Your task to perform on an android device: move an email to a new category in the gmail app Image 0: 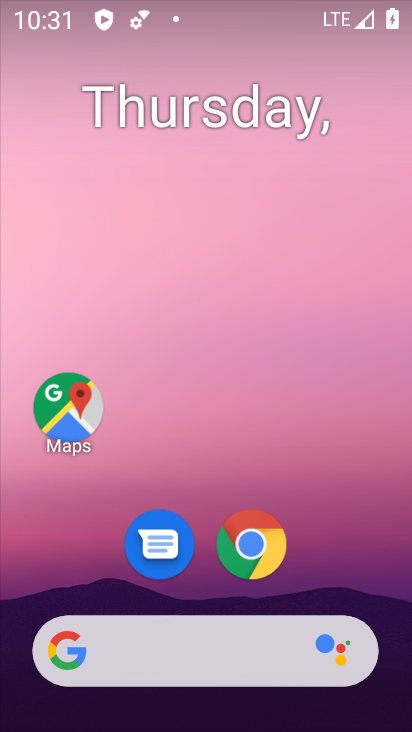
Step 0: drag from (315, 552) to (190, 135)
Your task to perform on an android device: move an email to a new category in the gmail app Image 1: 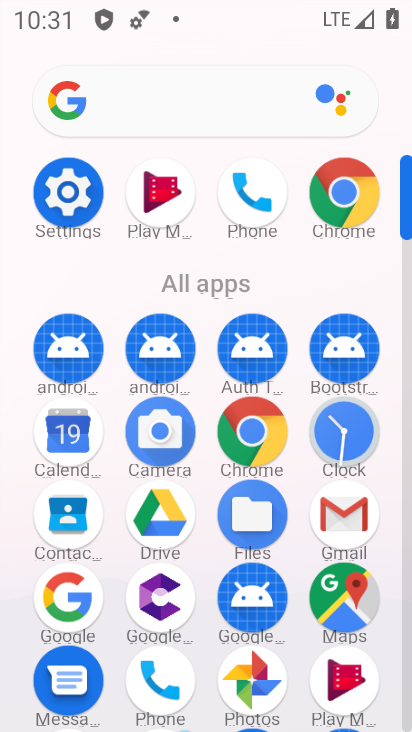
Step 1: click (348, 511)
Your task to perform on an android device: move an email to a new category in the gmail app Image 2: 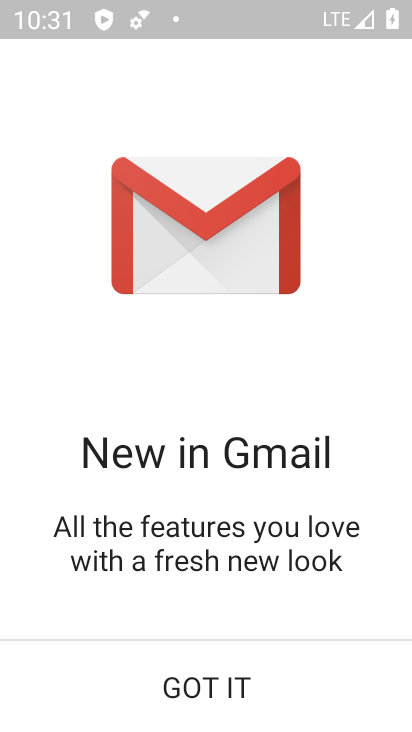
Step 2: click (194, 693)
Your task to perform on an android device: move an email to a new category in the gmail app Image 3: 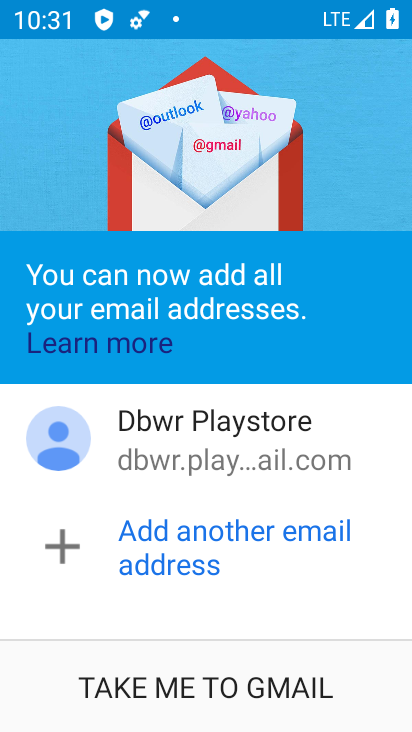
Step 3: click (194, 693)
Your task to perform on an android device: move an email to a new category in the gmail app Image 4: 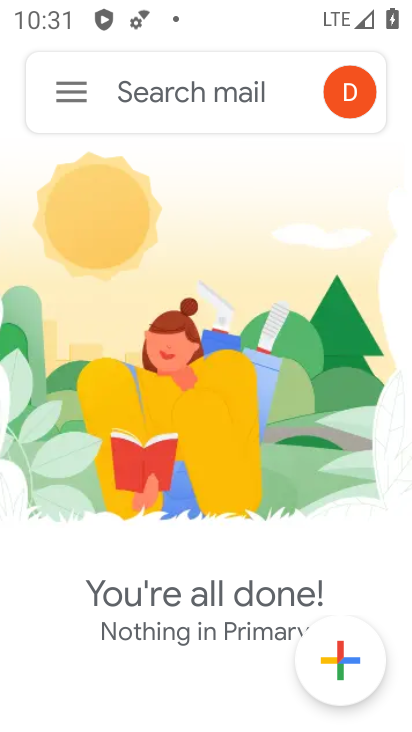
Step 4: click (76, 90)
Your task to perform on an android device: move an email to a new category in the gmail app Image 5: 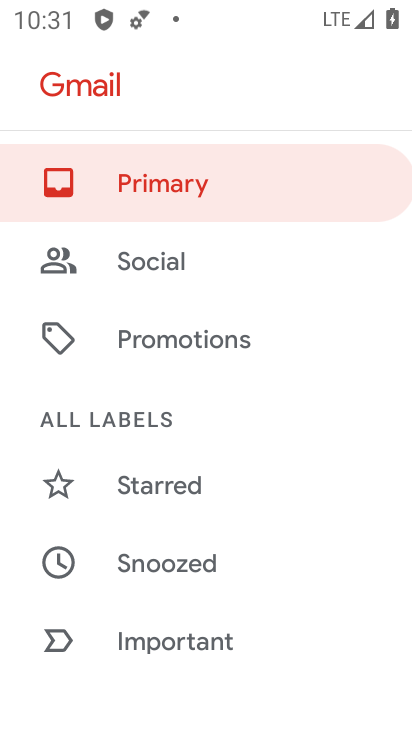
Step 5: drag from (132, 683) to (198, 319)
Your task to perform on an android device: move an email to a new category in the gmail app Image 6: 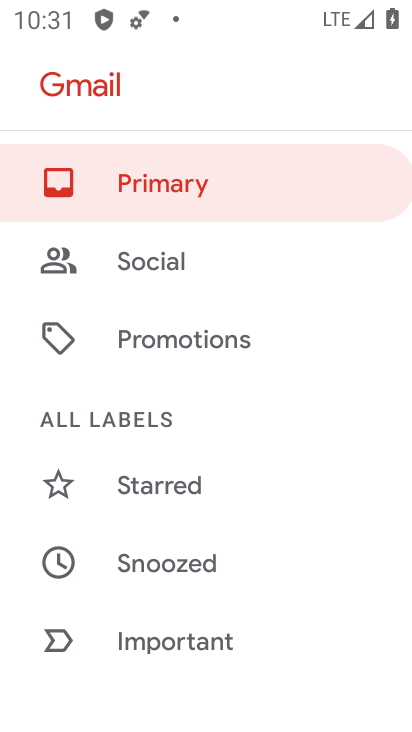
Step 6: drag from (214, 527) to (199, 151)
Your task to perform on an android device: move an email to a new category in the gmail app Image 7: 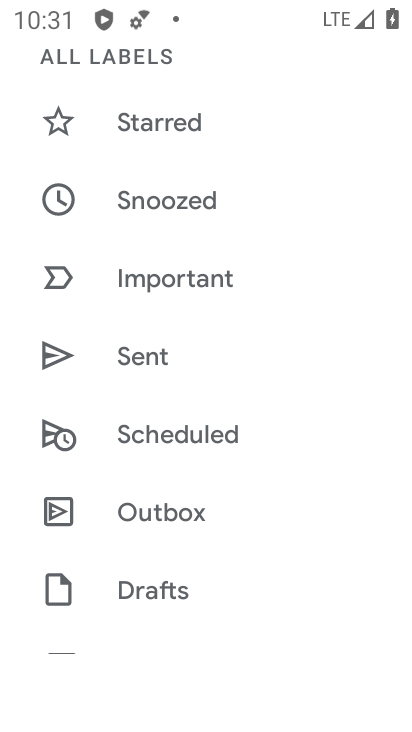
Step 7: drag from (200, 596) to (208, 236)
Your task to perform on an android device: move an email to a new category in the gmail app Image 8: 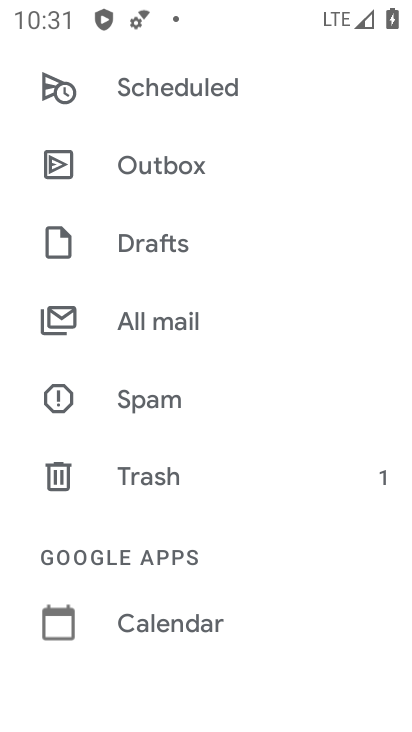
Step 8: click (168, 476)
Your task to perform on an android device: move an email to a new category in the gmail app Image 9: 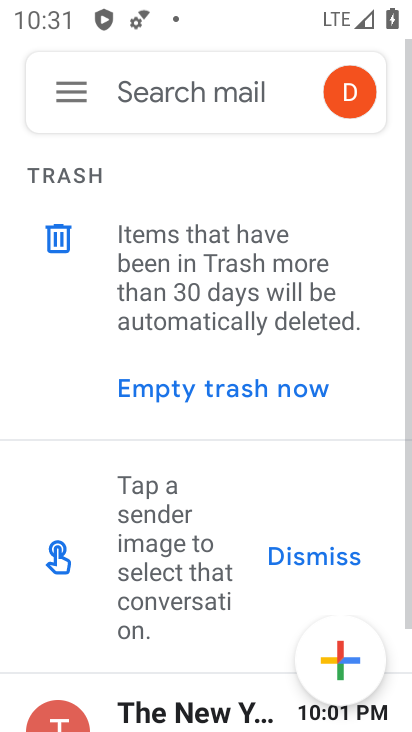
Step 9: drag from (185, 631) to (191, 344)
Your task to perform on an android device: move an email to a new category in the gmail app Image 10: 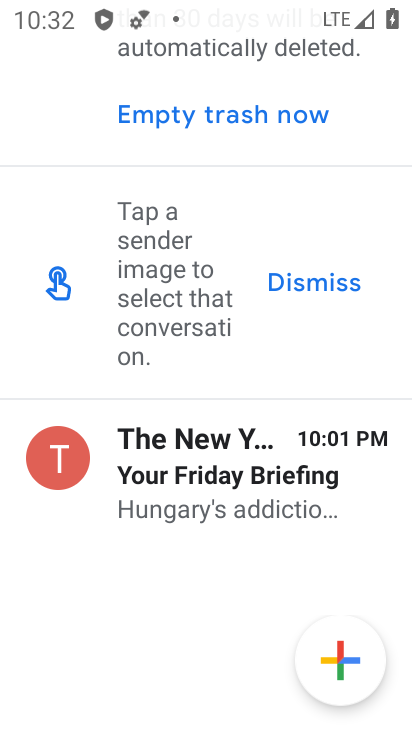
Step 10: click (130, 433)
Your task to perform on an android device: move an email to a new category in the gmail app Image 11: 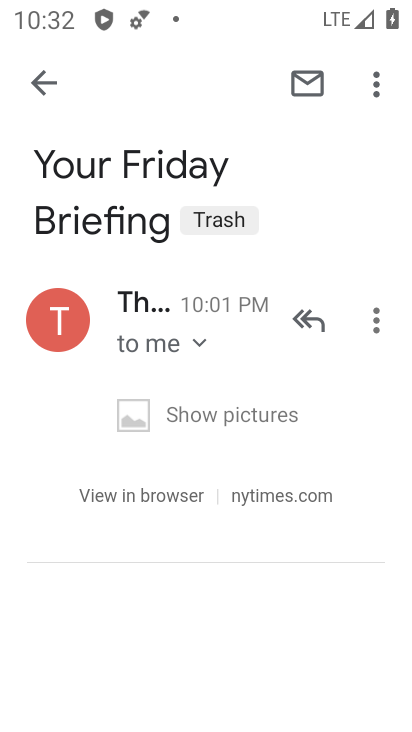
Step 11: click (377, 87)
Your task to perform on an android device: move an email to a new category in the gmail app Image 12: 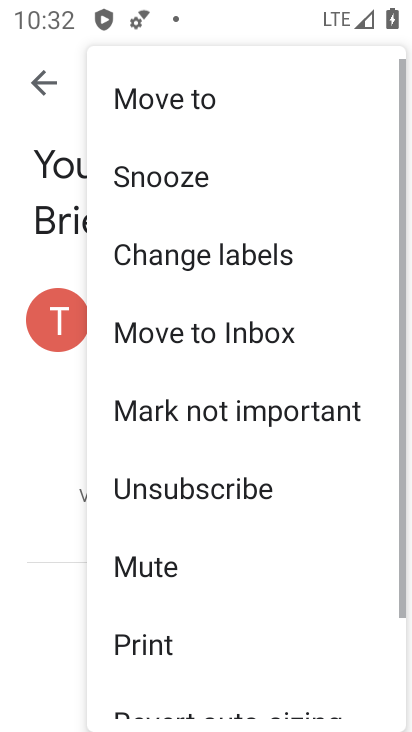
Step 12: click (140, 85)
Your task to perform on an android device: move an email to a new category in the gmail app Image 13: 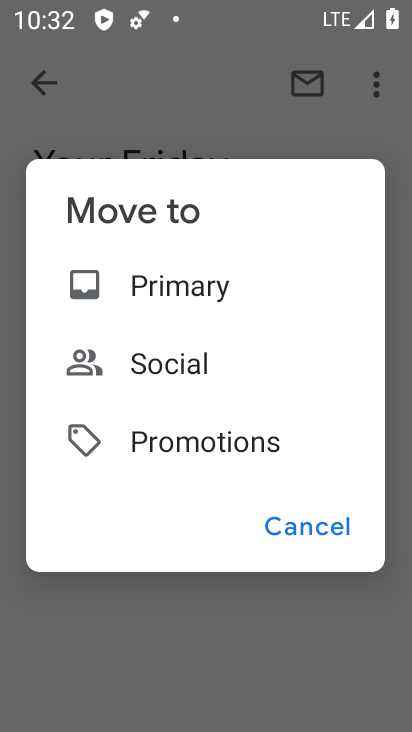
Step 13: click (157, 372)
Your task to perform on an android device: move an email to a new category in the gmail app Image 14: 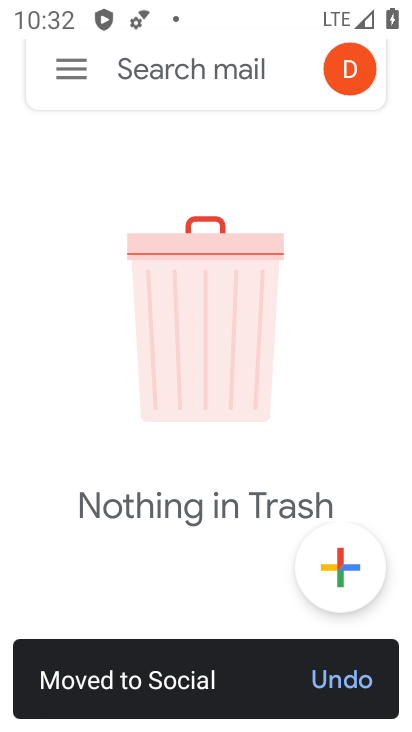
Step 14: click (62, 71)
Your task to perform on an android device: move an email to a new category in the gmail app Image 15: 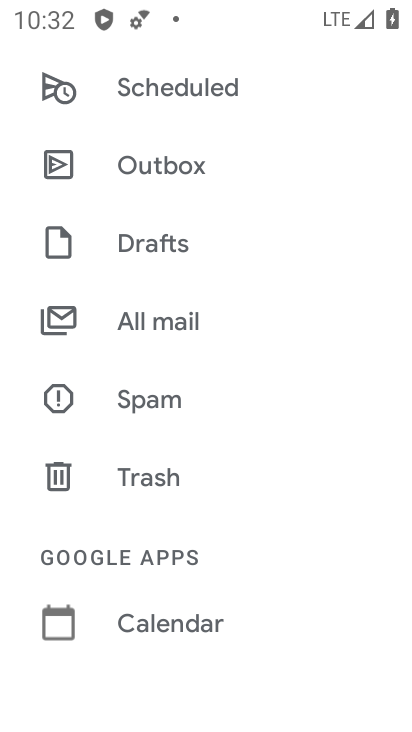
Step 15: drag from (153, 150) to (176, 625)
Your task to perform on an android device: move an email to a new category in the gmail app Image 16: 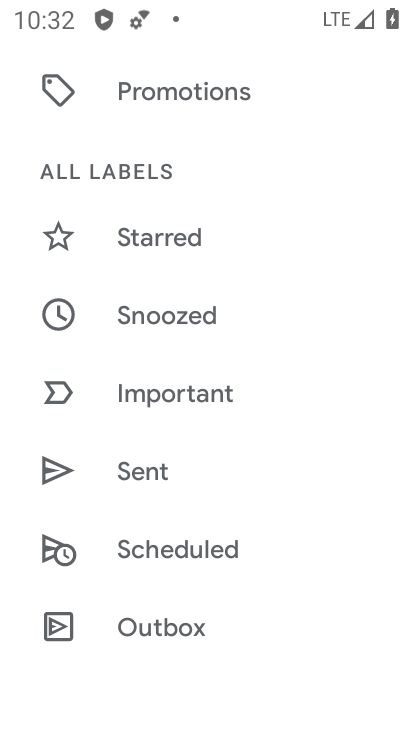
Step 16: drag from (202, 195) to (187, 433)
Your task to perform on an android device: move an email to a new category in the gmail app Image 17: 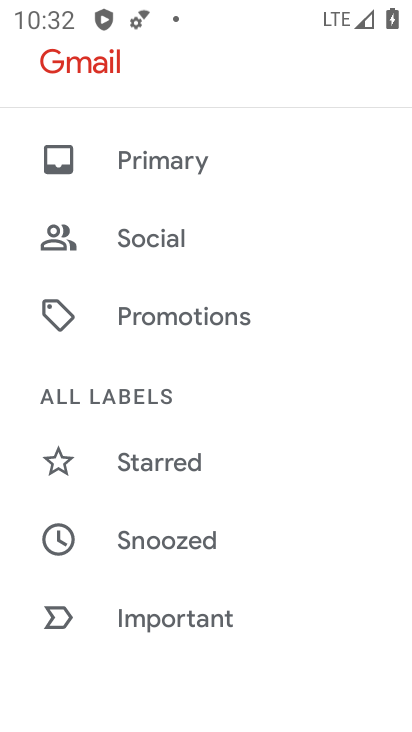
Step 17: click (138, 243)
Your task to perform on an android device: move an email to a new category in the gmail app Image 18: 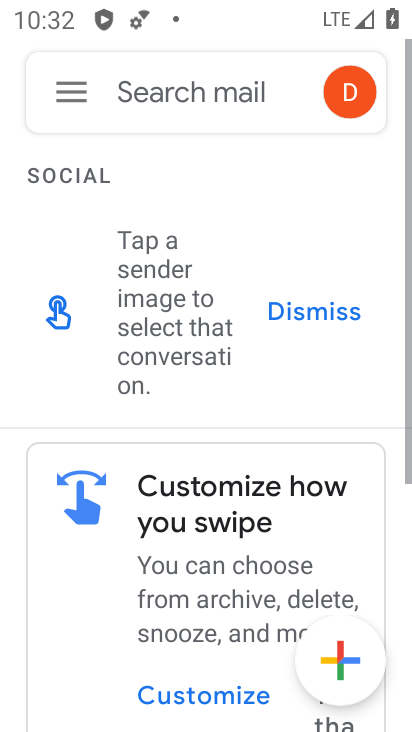
Step 18: task complete